Your task to perform on an android device: Open accessibility settings Image 0: 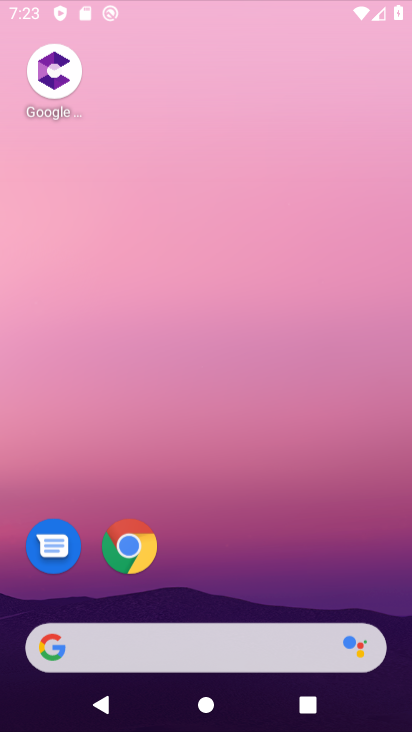
Step 0: click (297, 1)
Your task to perform on an android device: Open accessibility settings Image 1: 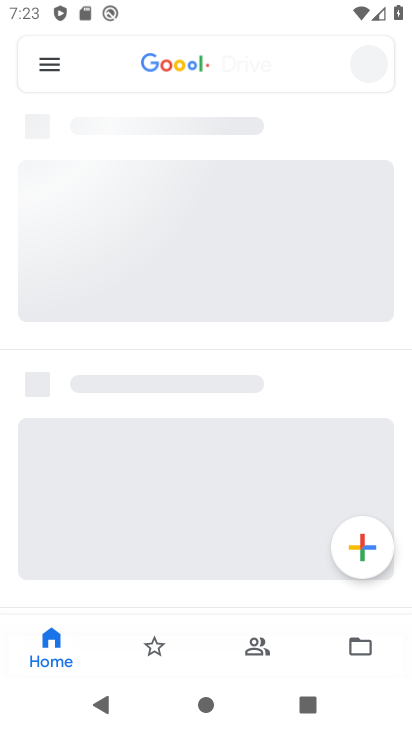
Step 1: drag from (231, 576) to (227, 295)
Your task to perform on an android device: Open accessibility settings Image 2: 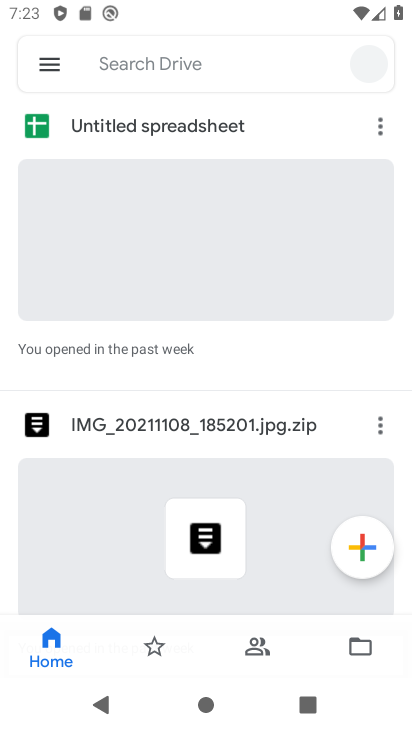
Step 2: press home button
Your task to perform on an android device: Open accessibility settings Image 3: 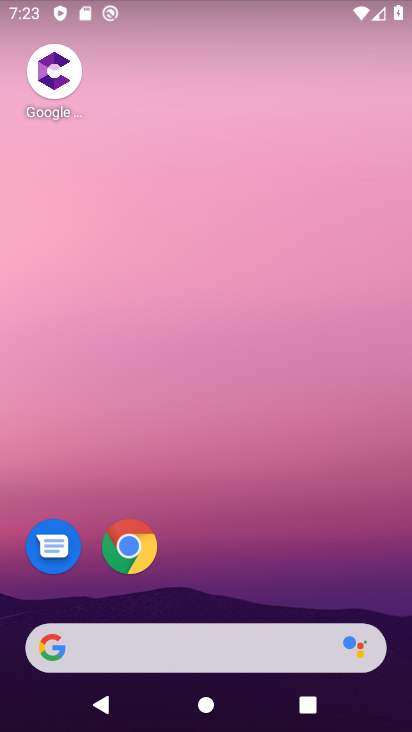
Step 3: drag from (213, 588) to (192, 160)
Your task to perform on an android device: Open accessibility settings Image 4: 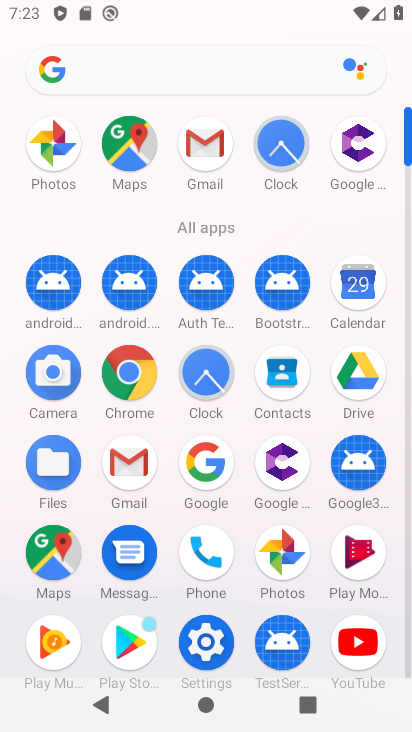
Step 4: click (207, 652)
Your task to perform on an android device: Open accessibility settings Image 5: 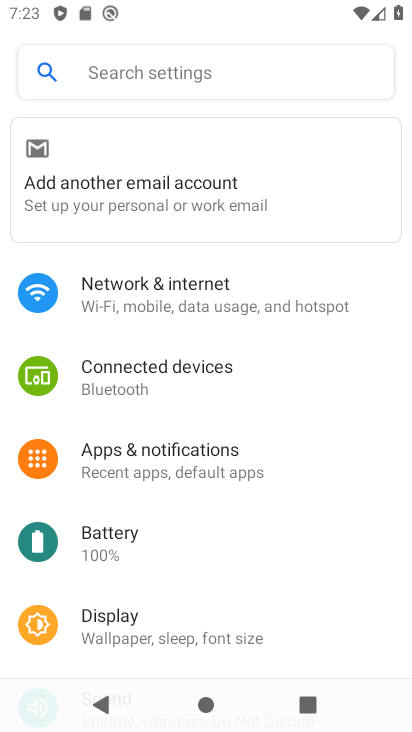
Step 5: drag from (187, 642) to (187, 256)
Your task to perform on an android device: Open accessibility settings Image 6: 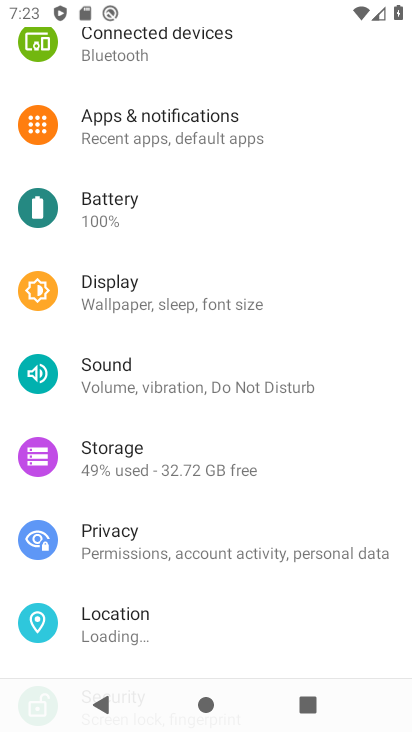
Step 6: drag from (142, 549) to (145, 108)
Your task to perform on an android device: Open accessibility settings Image 7: 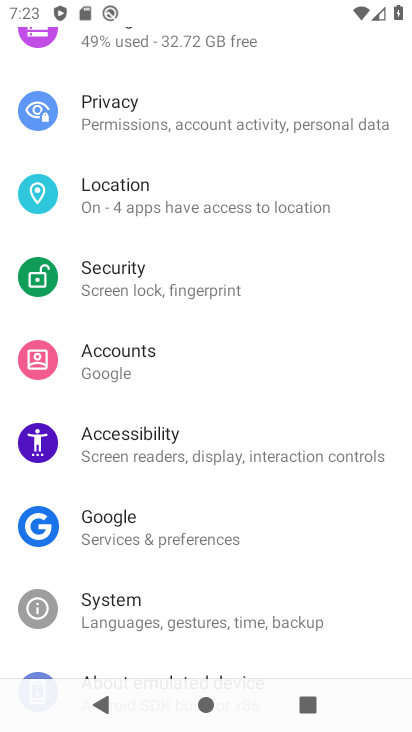
Step 7: click (129, 447)
Your task to perform on an android device: Open accessibility settings Image 8: 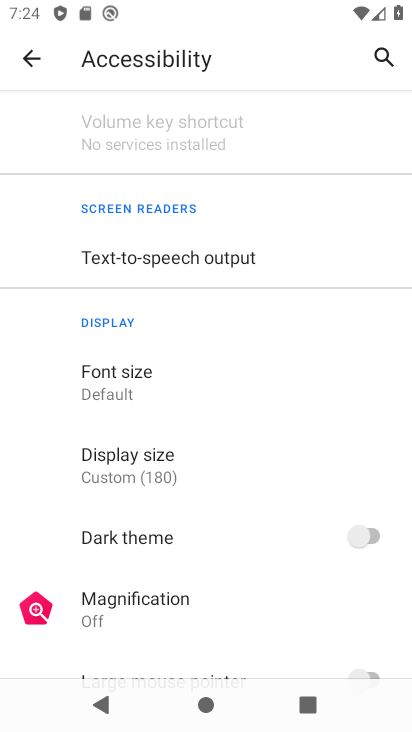
Step 8: task complete